Your task to perform on an android device: turn on data saver in the chrome app Image 0: 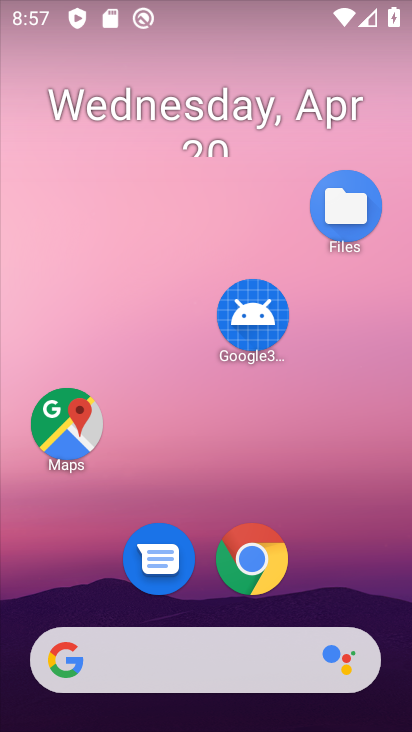
Step 0: click (261, 567)
Your task to perform on an android device: turn on data saver in the chrome app Image 1: 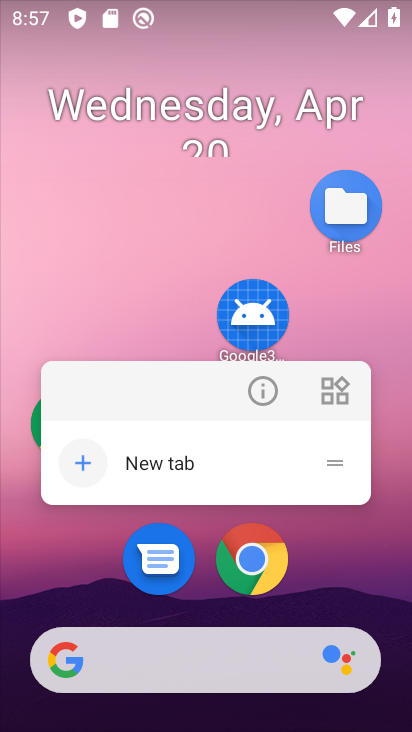
Step 1: click (252, 558)
Your task to perform on an android device: turn on data saver in the chrome app Image 2: 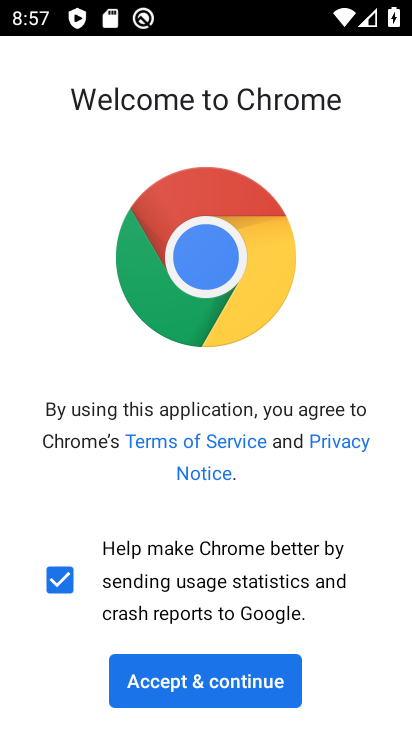
Step 2: click (217, 685)
Your task to perform on an android device: turn on data saver in the chrome app Image 3: 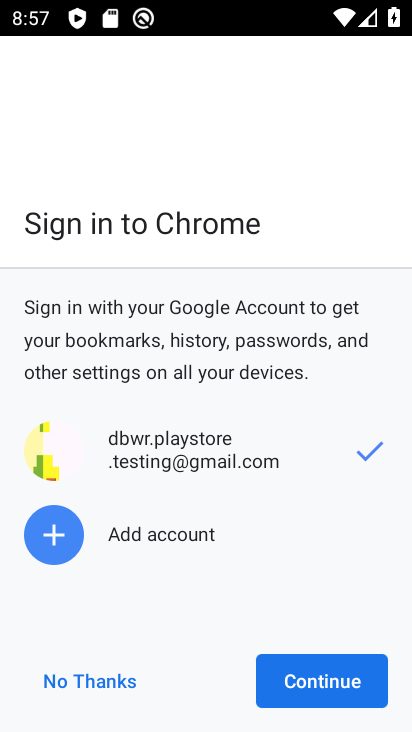
Step 3: click (315, 674)
Your task to perform on an android device: turn on data saver in the chrome app Image 4: 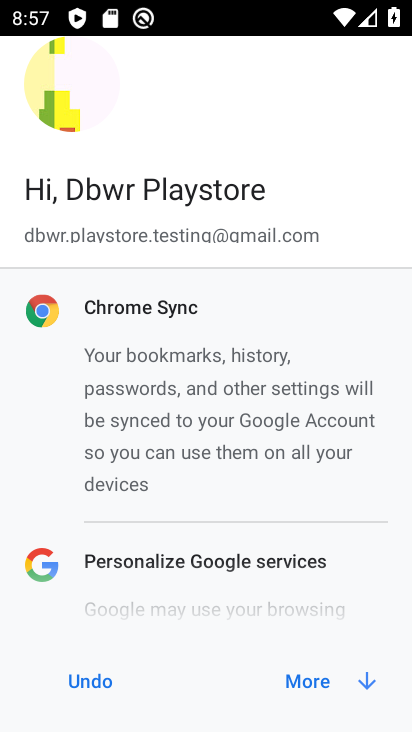
Step 4: click (315, 674)
Your task to perform on an android device: turn on data saver in the chrome app Image 5: 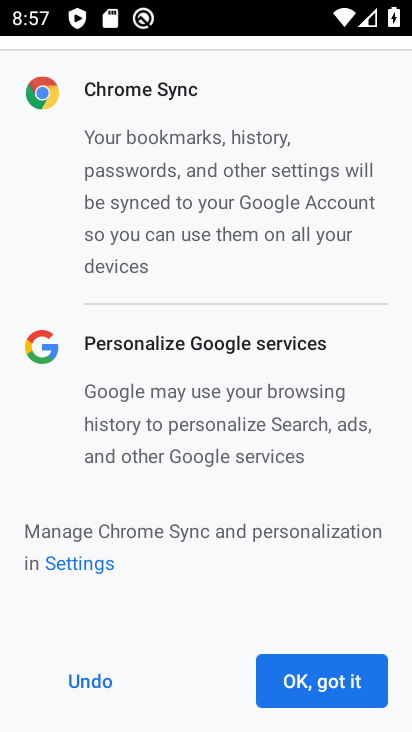
Step 5: click (315, 674)
Your task to perform on an android device: turn on data saver in the chrome app Image 6: 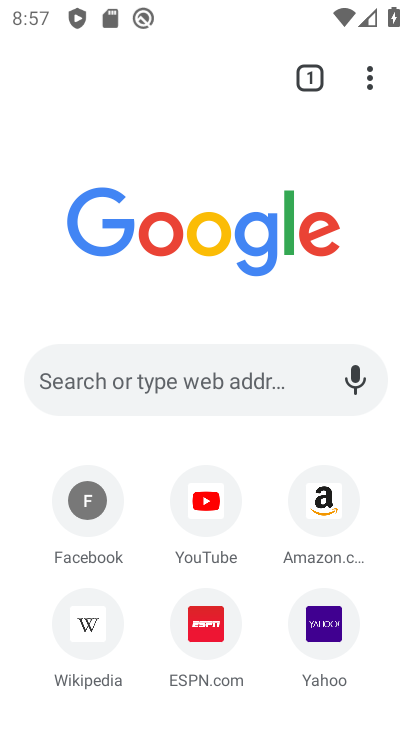
Step 6: drag from (363, 87) to (232, 630)
Your task to perform on an android device: turn on data saver in the chrome app Image 7: 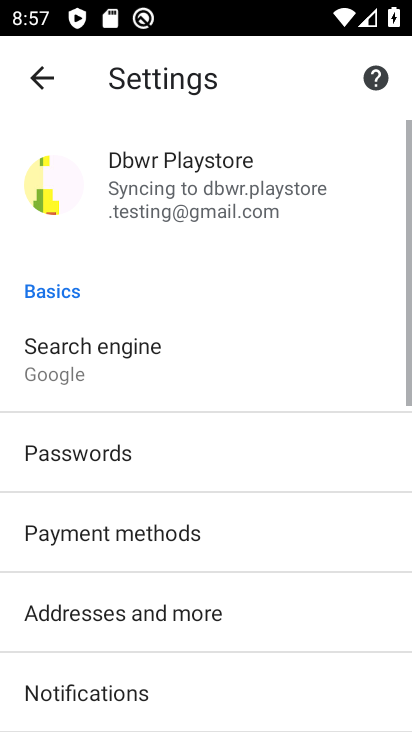
Step 7: drag from (223, 645) to (287, 207)
Your task to perform on an android device: turn on data saver in the chrome app Image 8: 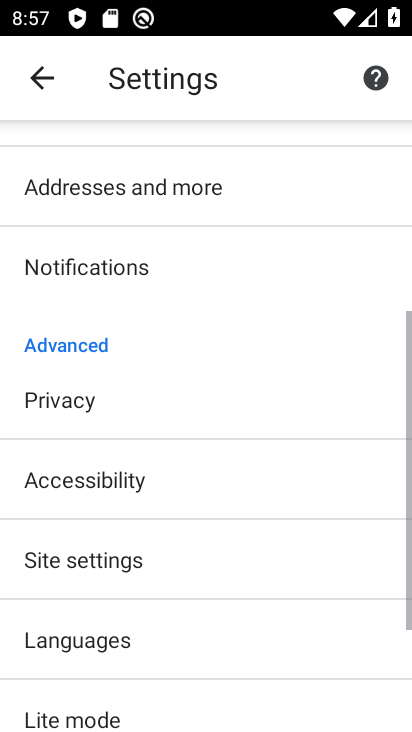
Step 8: drag from (235, 604) to (282, 313)
Your task to perform on an android device: turn on data saver in the chrome app Image 9: 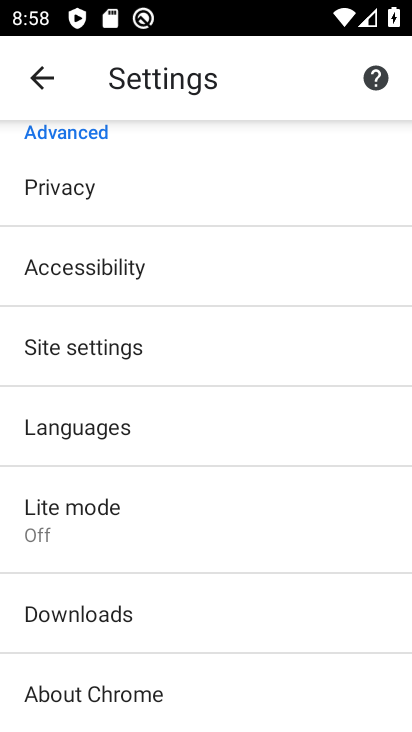
Step 9: click (201, 538)
Your task to perform on an android device: turn on data saver in the chrome app Image 10: 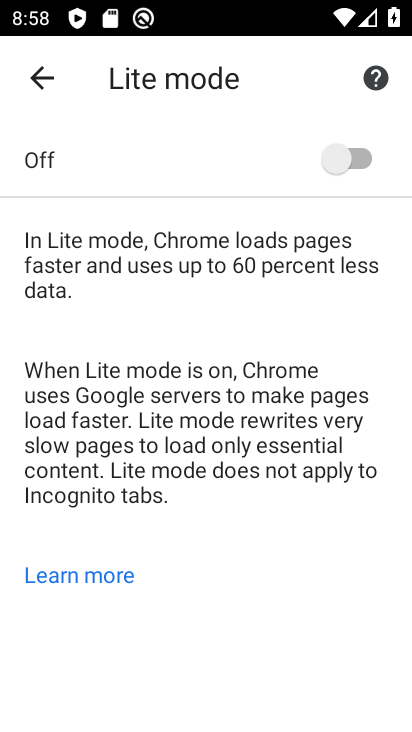
Step 10: click (368, 150)
Your task to perform on an android device: turn on data saver in the chrome app Image 11: 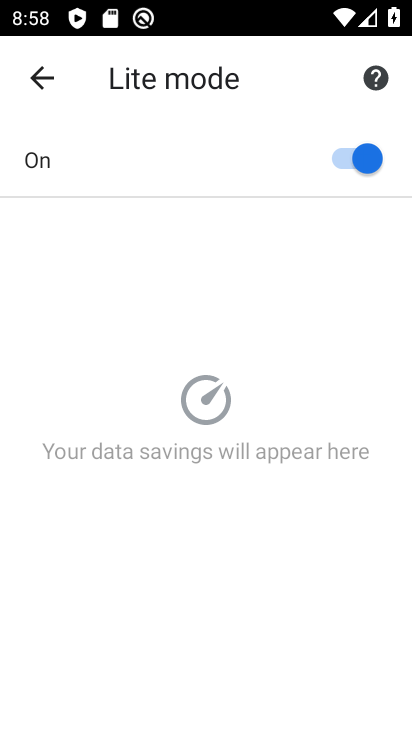
Step 11: task complete